Your task to perform on an android device: install app "Indeed Job Search" Image 0: 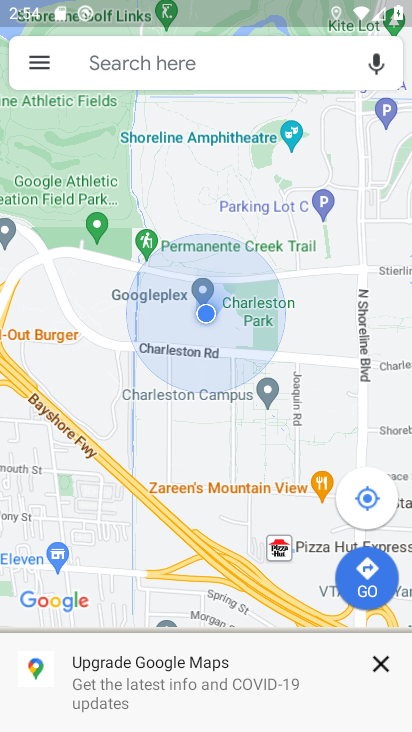
Step 0: press home button
Your task to perform on an android device: install app "Indeed Job Search" Image 1: 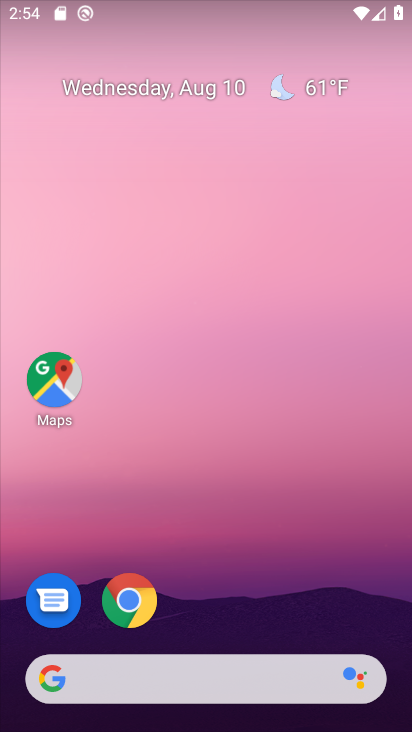
Step 1: drag from (220, 624) to (207, 88)
Your task to perform on an android device: install app "Indeed Job Search" Image 2: 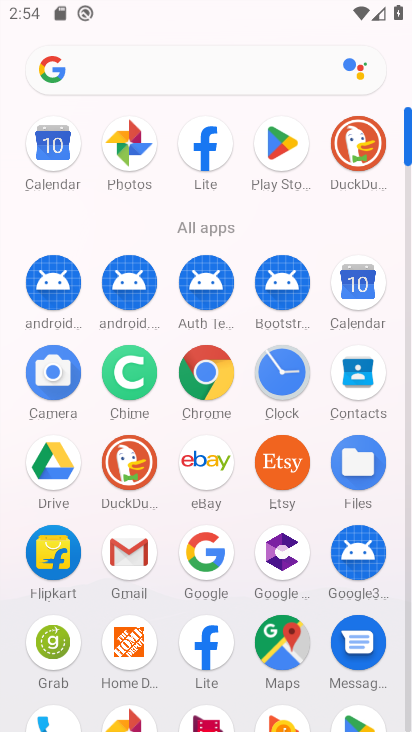
Step 2: click (286, 129)
Your task to perform on an android device: install app "Indeed Job Search" Image 3: 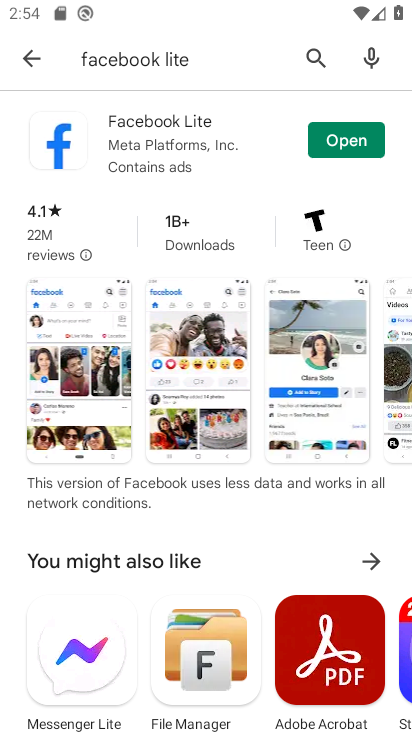
Step 3: click (321, 49)
Your task to perform on an android device: install app "Indeed Job Search" Image 4: 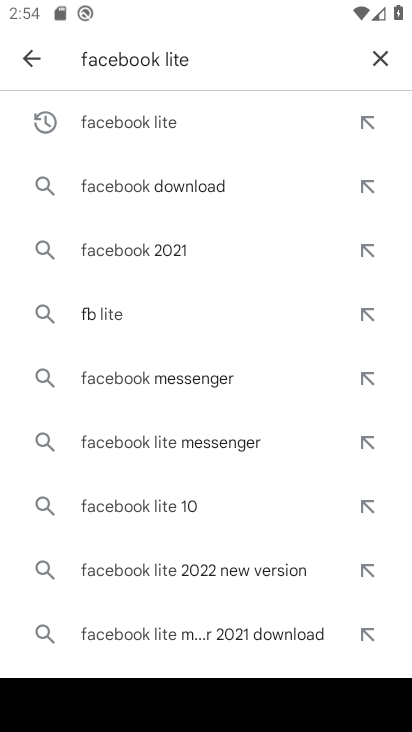
Step 4: click (367, 53)
Your task to perform on an android device: install app "Indeed Job Search" Image 5: 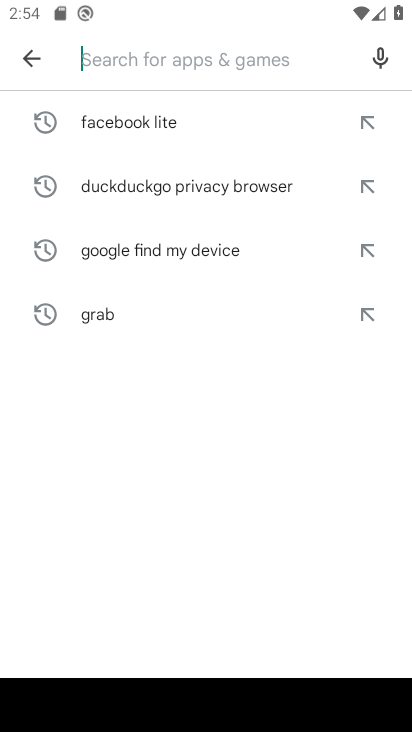
Step 5: click (129, 49)
Your task to perform on an android device: install app "Indeed Job Search" Image 6: 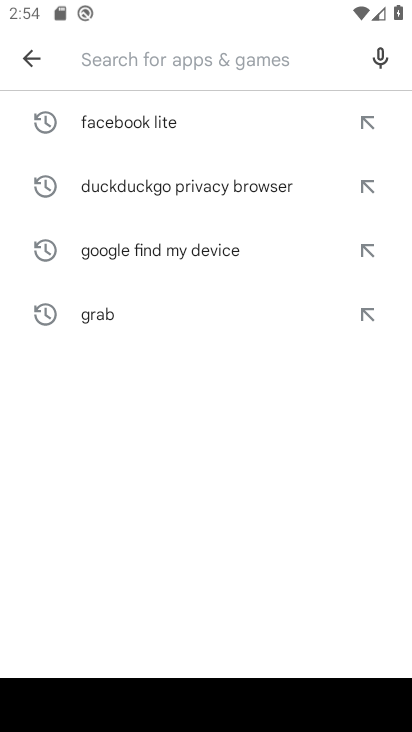
Step 6: type "Indeed Job Search"
Your task to perform on an android device: install app "Indeed Job Search" Image 7: 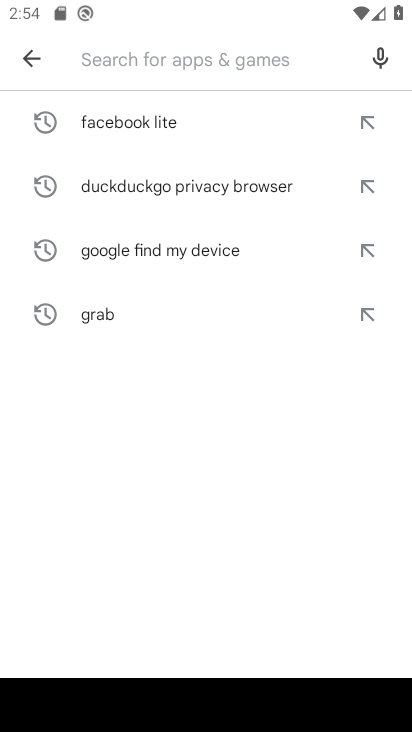
Step 7: click (81, 428)
Your task to perform on an android device: install app "Indeed Job Search" Image 8: 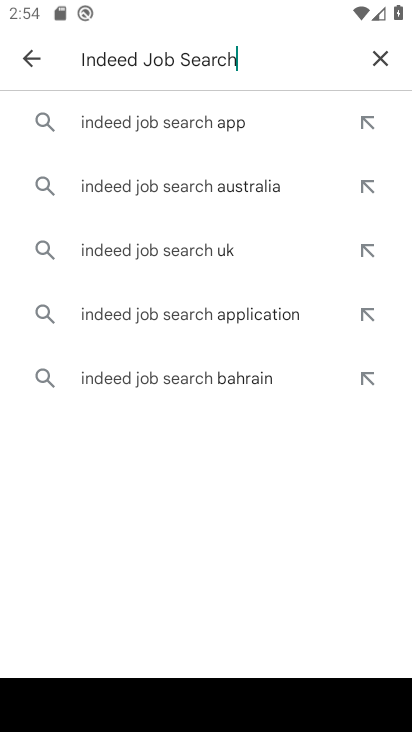
Step 8: click (181, 121)
Your task to perform on an android device: install app "Indeed Job Search" Image 9: 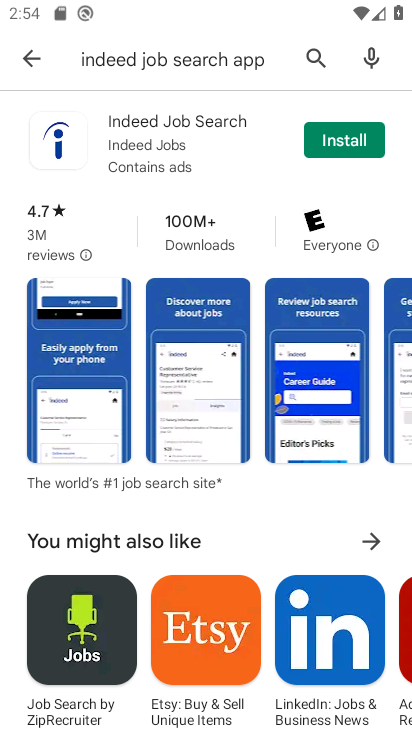
Step 9: click (316, 137)
Your task to perform on an android device: install app "Indeed Job Search" Image 10: 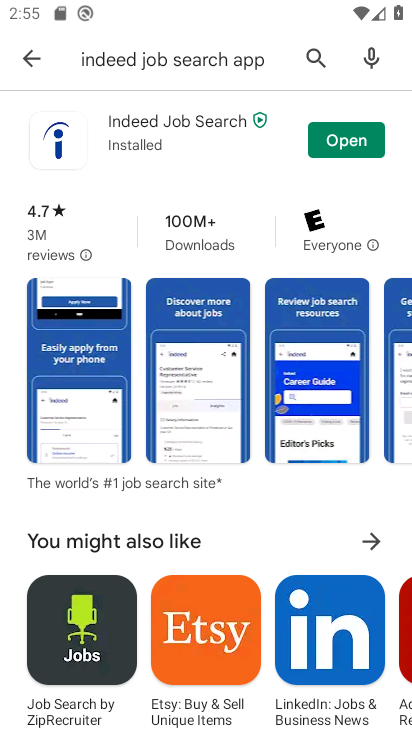
Step 10: click (359, 138)
Your task to perform on an android device: install app "Indeed Job Search" Image 11: 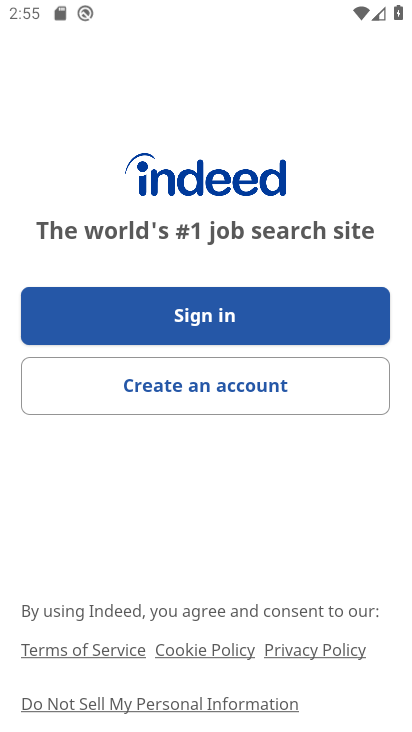
Step 11: task complete